Your task to perform on an android device: change the upload size in google photos Image 0: 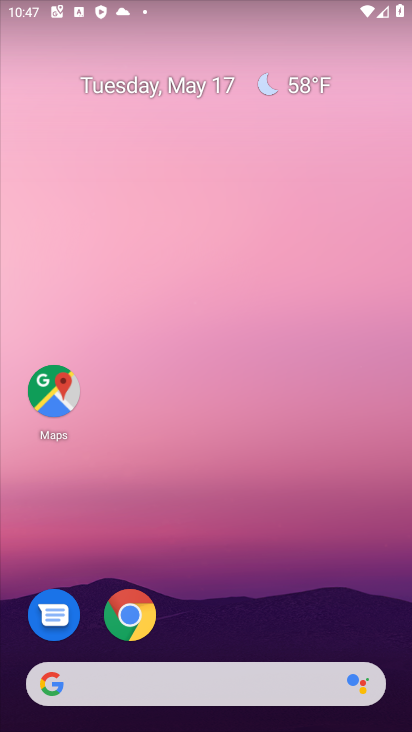
Step 0: drag from (369, 626) to (322, 153)
Your task to perform on an android device: change the upload size in google photos Image 1: 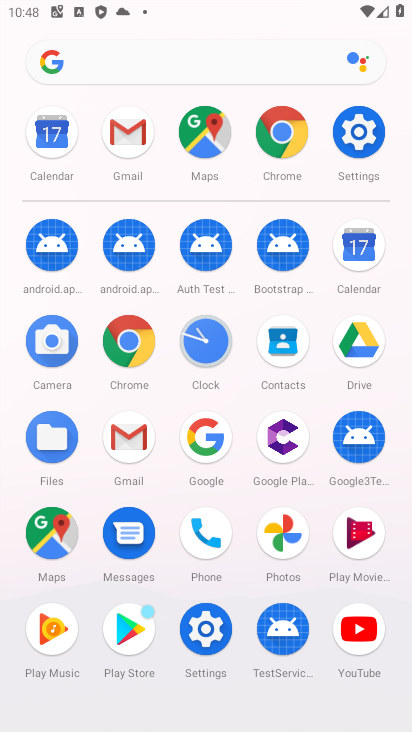
Step 1: click (278, 526)
Your task to perform on an android device: change the upload size in google photos Image 2: 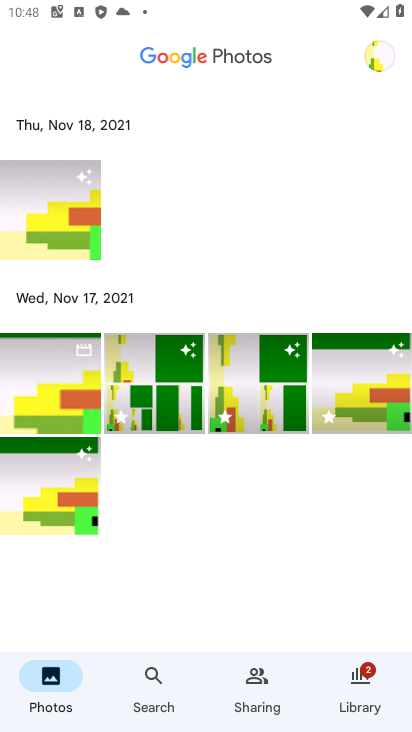
Step 2: click (386, 58)
Your task to perform on an android device: change the upload size in google photos Image 3: 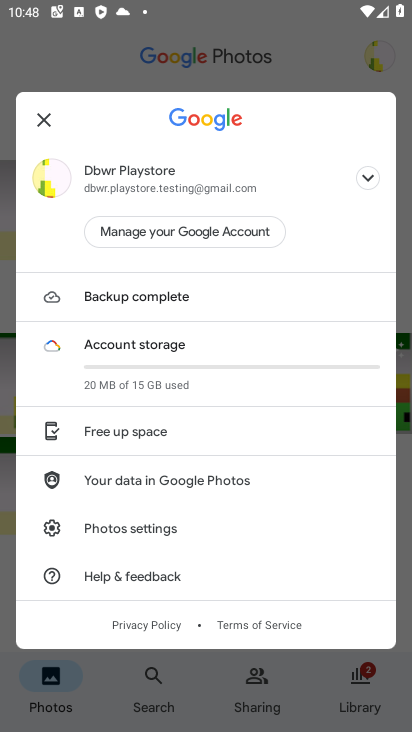
Step 3: click (128, 525)
Your task to perform on an android device: change the upload size in google photos Image 4: 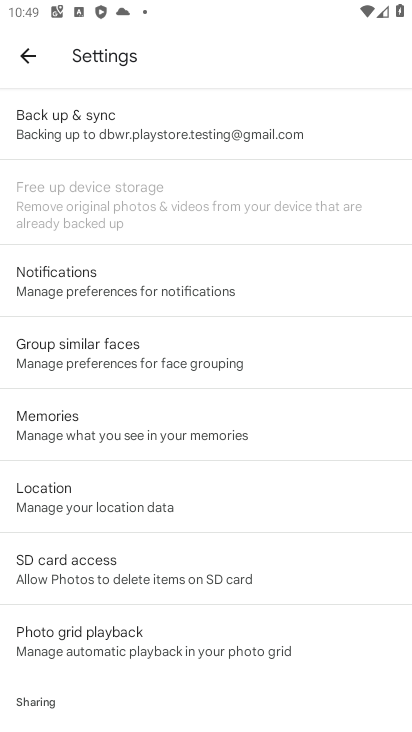
Step 4: click (108, 108)
Your task to perform on an android device: change the upload size in google photos Image 5: 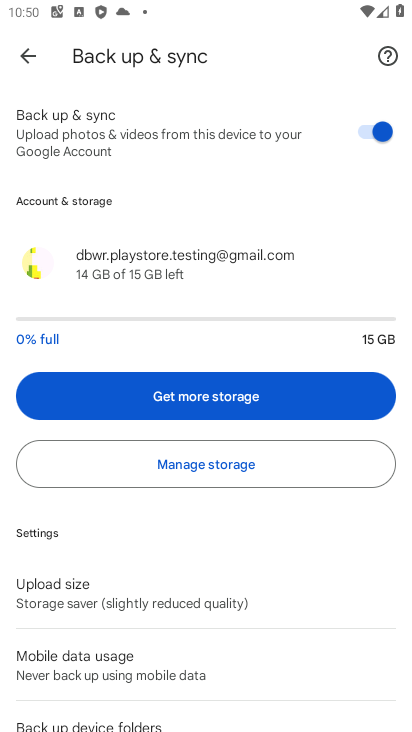
Step 5: click (109, 594)
Your task to perform on an android device: change the upload size in google photos Image 6: 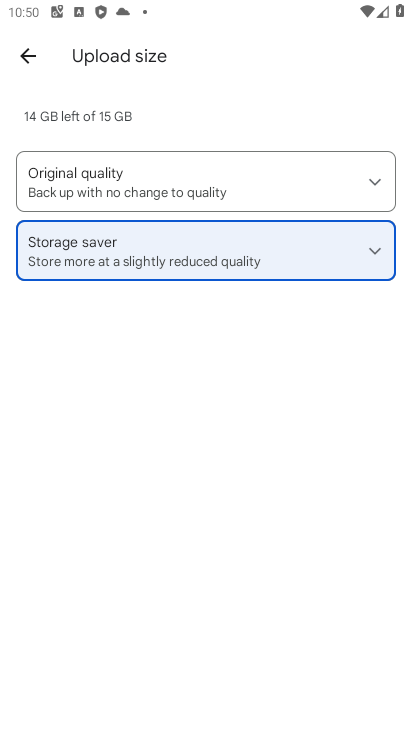
Step 6: click (102, 174)
Your task to perform on an android device: change the upload size in google photos Image 7: 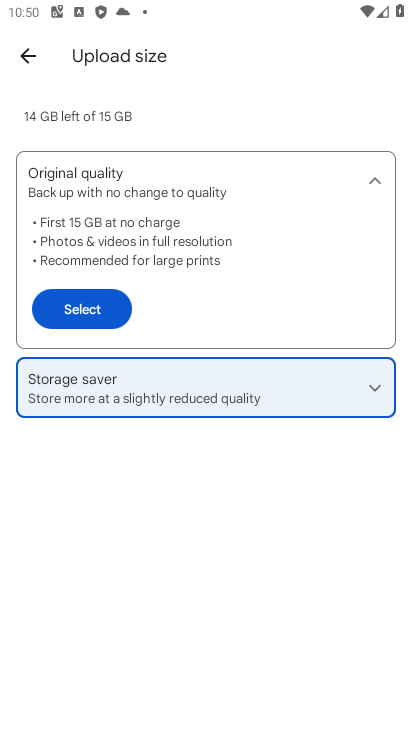
Step 7: click (87, 310)
Your task to perform on an android device: change the upload size in google photos Image 8: 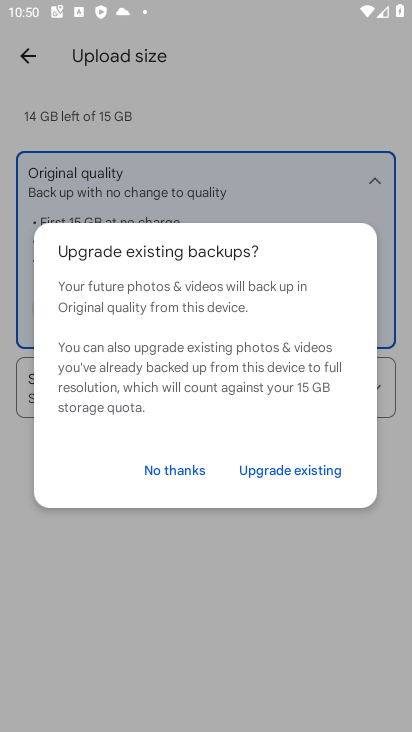
Step 8: click (188, 472)
Your task to perform on an android device: change the upload size in google photos Image 9: 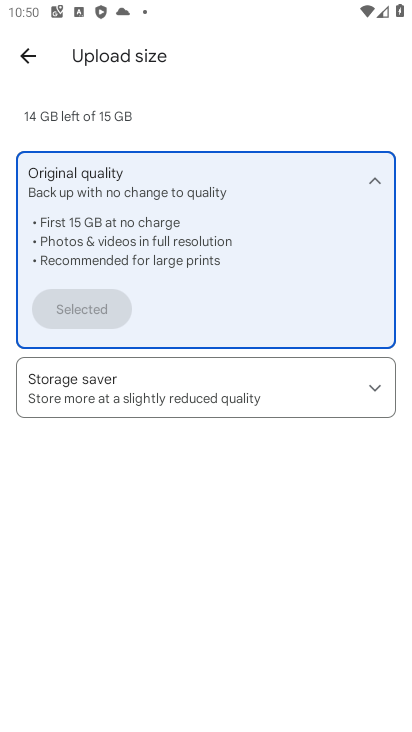
Step 9: task complete